Your task to perform on an android device: turn on translation in the chrome app Image 0: 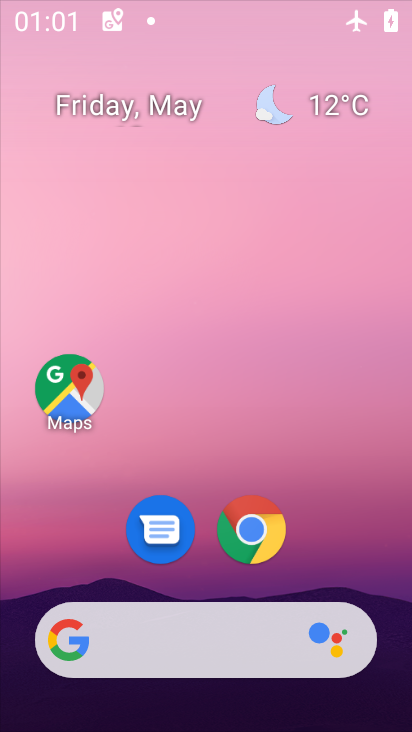
Step 0: drag from (351, 550) to (346, 256)
Your task to perform on an android device: turn on translation in the chrome app Image 1: 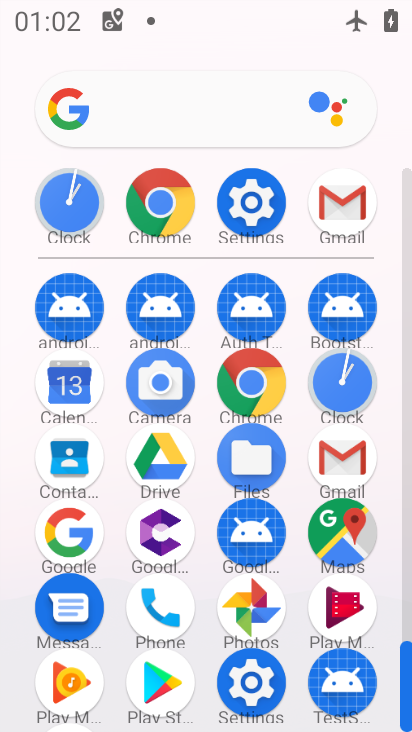
Step 1: click (157, 179)
Your task to perform on an android device: turn on translation in the chrome app Image 2: 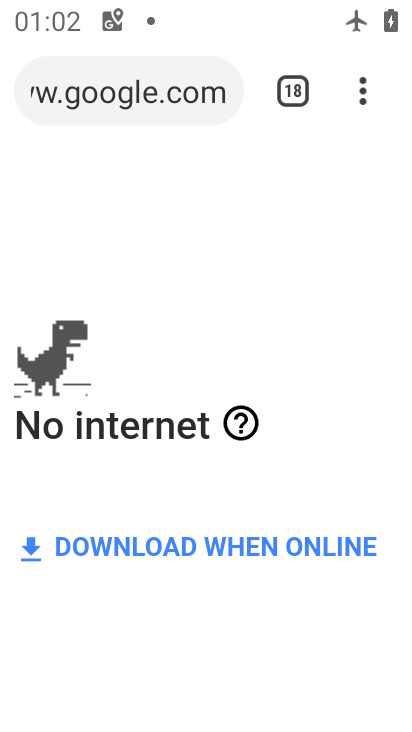
Step 2: click (345, 82)
Your task to perform on an android device: turn on translation in the chrome app Image 3: 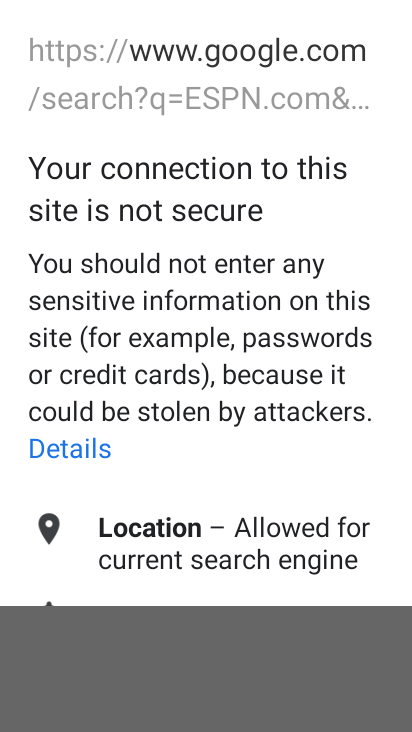
Step 3: press back button
Your task to perform on an android device: turn on translation in the chrome app Image 4: 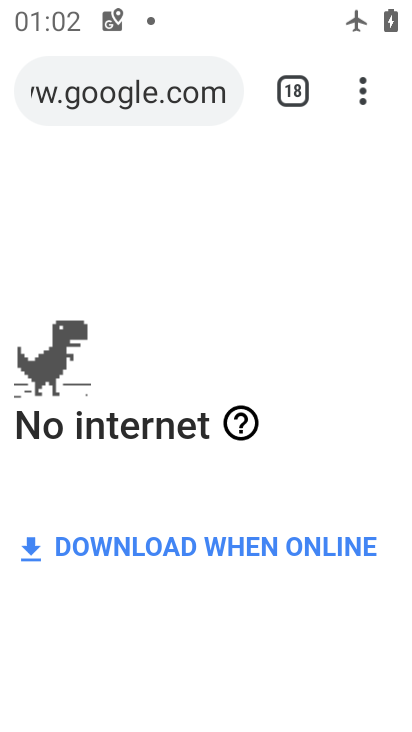
Step 4: click (373, 90)
Your task to perform on an android device: turn on translation in the chrome app Image 5: 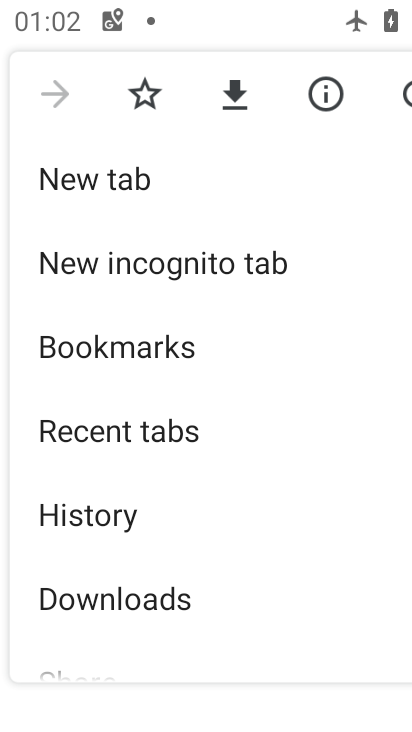
Step 5: drag from (231, 519) to (273, 170)
Your task to perform on an android device: turn on translation in the chrome app Image 6: 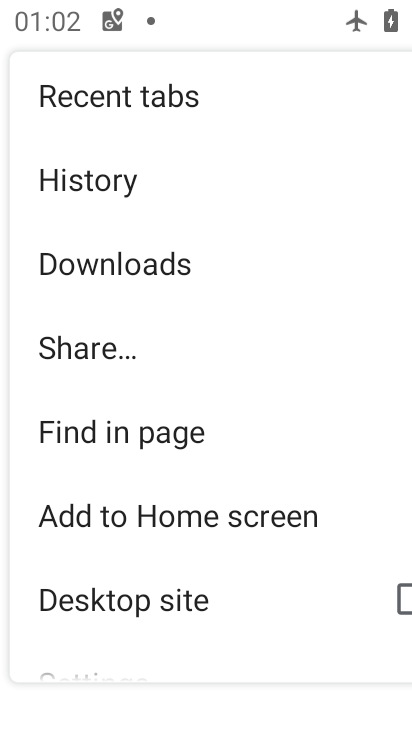
Step 6: drag from (188, 572) to (237, 177)
Your task to perform on an android device: turn on translation in the chrome app Image 7: 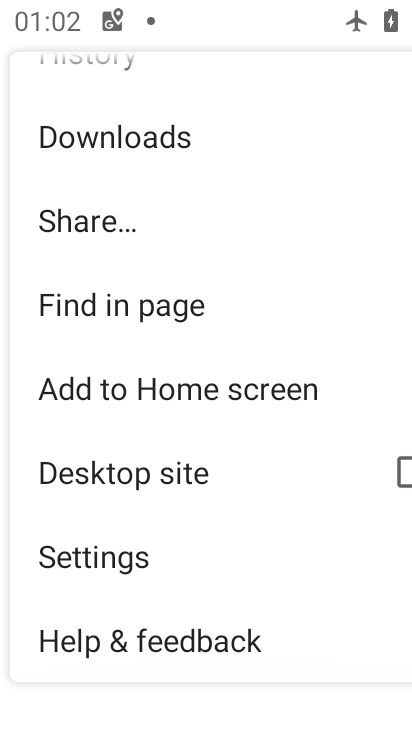
Step 7: click (110, 565)
Your task to perform on an android device: turn on translation in the chrome app Image 8: 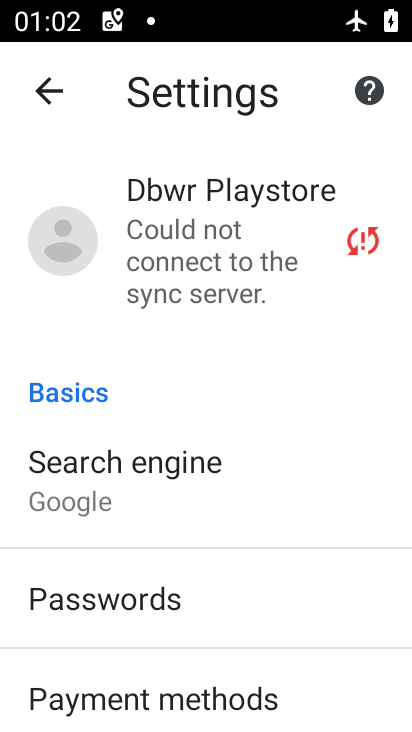
Step 8: drag from (286, 599) to (321, 234)
Your task to perform on an android device: turn on translation in the chrome app Image 9: 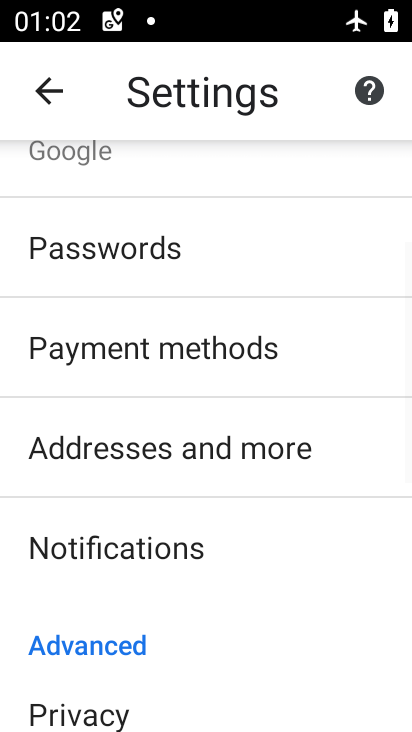
Step 9: drag from (229, 553) to (285, 214)
Your task to perform on an android device: turn on translation in the chrome app Image 10: 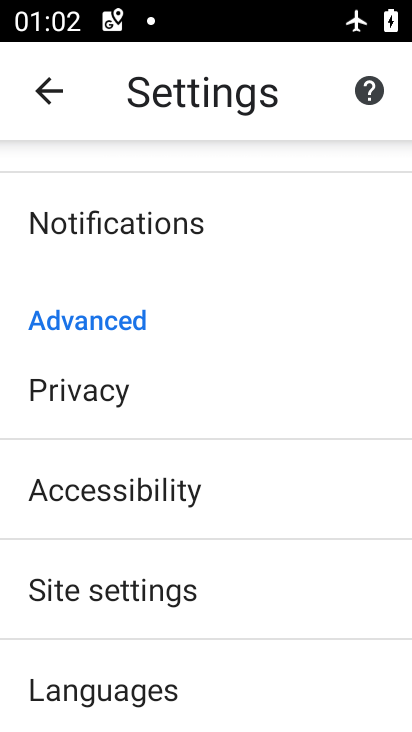
Step 10: drag from (184, 660) to (250, 267)
Your task to perform on an android device: turn on translation in the chrome app Image 11: 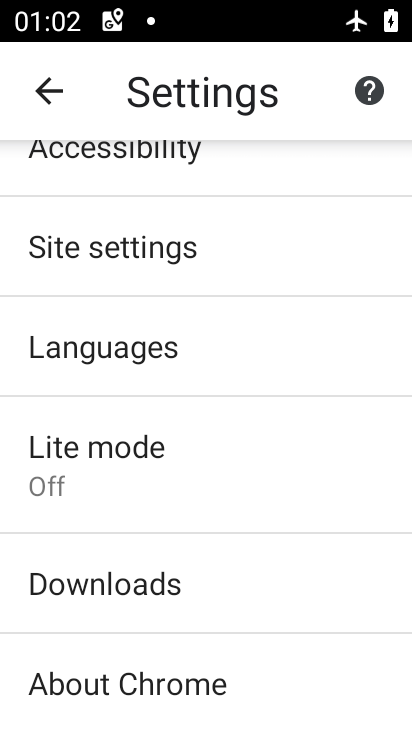
Step 11: click (123, 328)
Your task to perform on an android device: turn on translation in the chrome app Image 12: 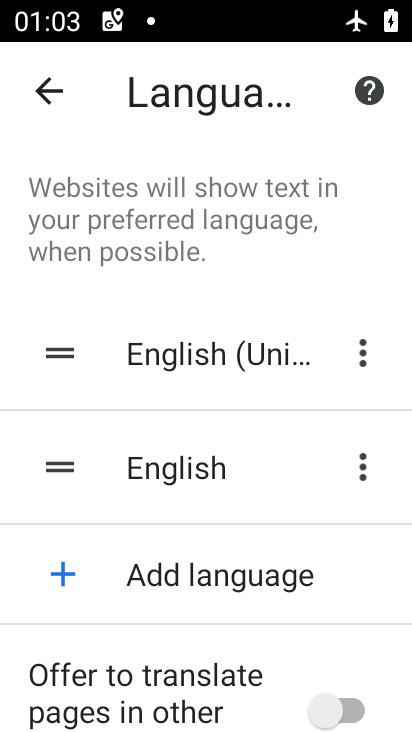
Step 12: drag from (317, 597) to (317, 376)
Your task to perform on an android device: turn on translation in the chrome app Image 13: 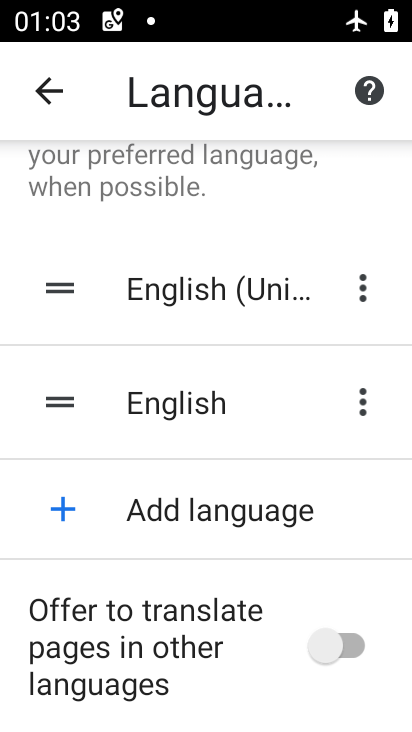
Step 13: click (319, 639)
Your task to perform on an android device: turn on translation in the chrome app Image 14: 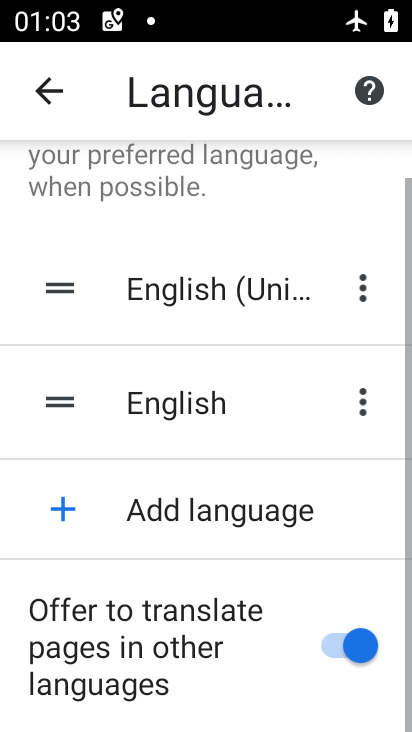
Step 14: task complete